Your task to perform on an android device: Open maps Image 0: 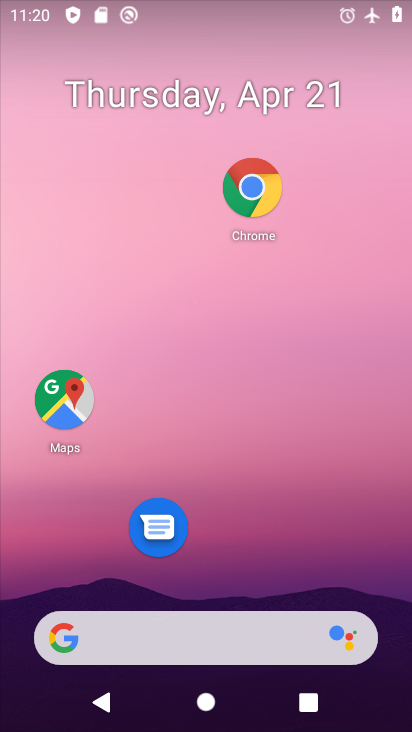
Step 0: drag from (237, 576) to (250, 148)
Your task to perform on an android device: Open maps Image 1: 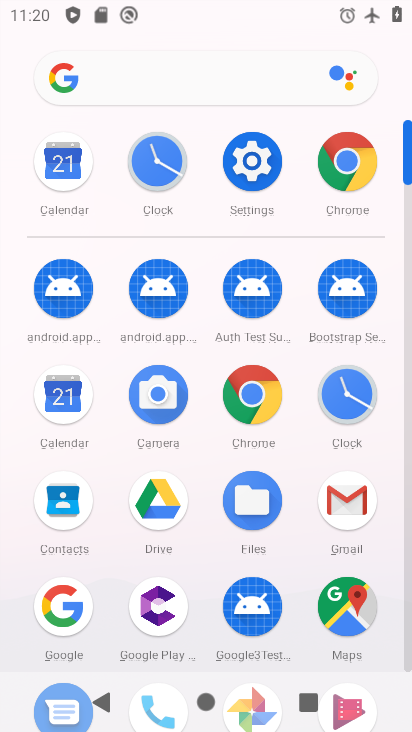
Step 1: click (351, 595)
Your task to perform on an android device: Open maps Image 2: 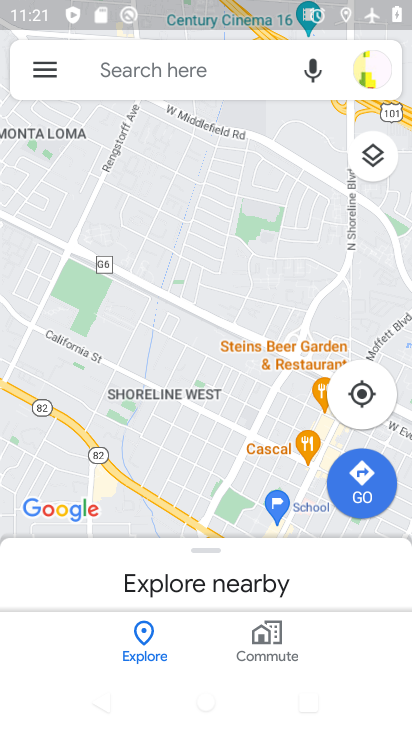
Step 2: task complete